Your task to perform on an android device: Open the Play Movies app and select the watchlist tab. Image 0: 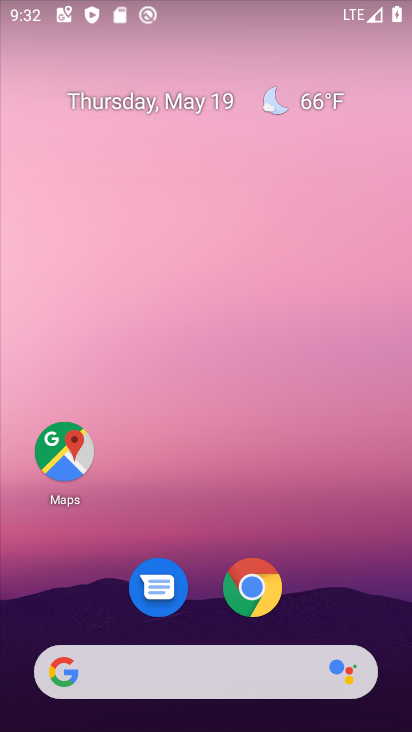
Step 0: drag from (295, 674) to (266, 332)
Your task to perform on an android device: Open the Play Movies app and select the watchlist tab. Image 1: 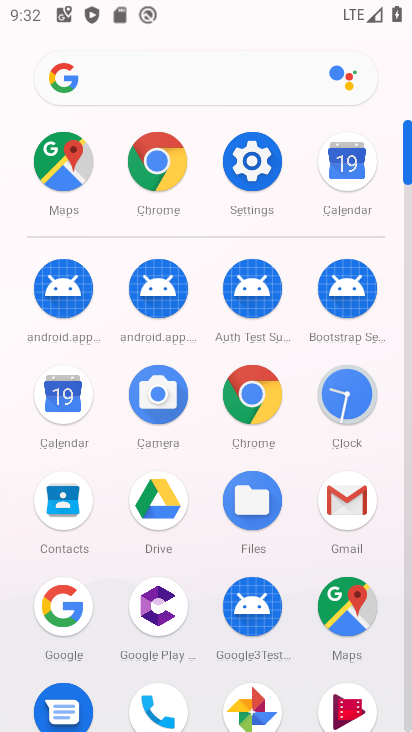
Step 1: click (356, 693)
Your task to perform on an android device: Open the Play Movies app and select the watchlist tab. Image 2: 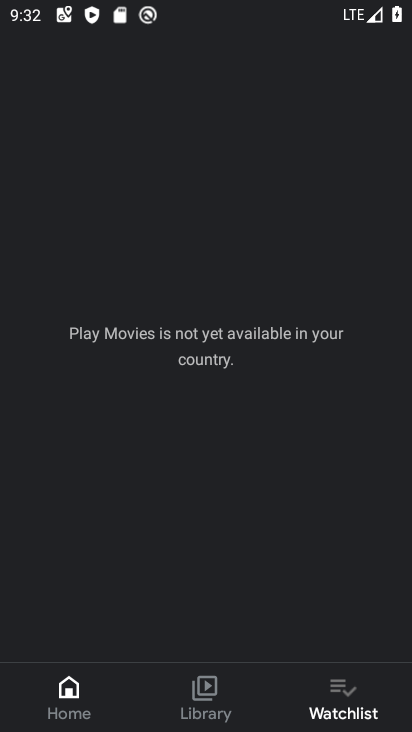
Step 2: task complete